Your task to perform on an android device: turn off airplane mode Image 0: 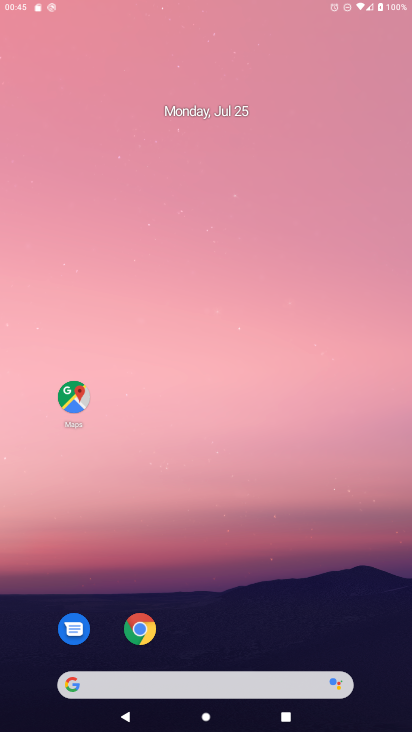
Step 0: click (404, 154)
Your task to perform on an android device: turn off airplane mode Image 1: 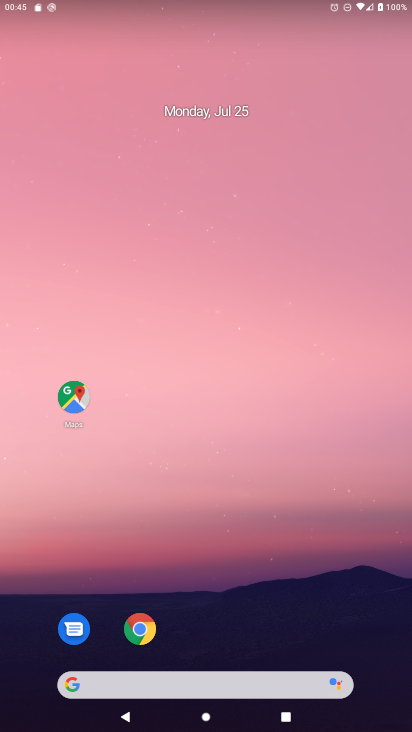
Step 1: drag from (169, 633) to (214, 364)
Your task to perform on an android device: turn off airplane mode Image 2: 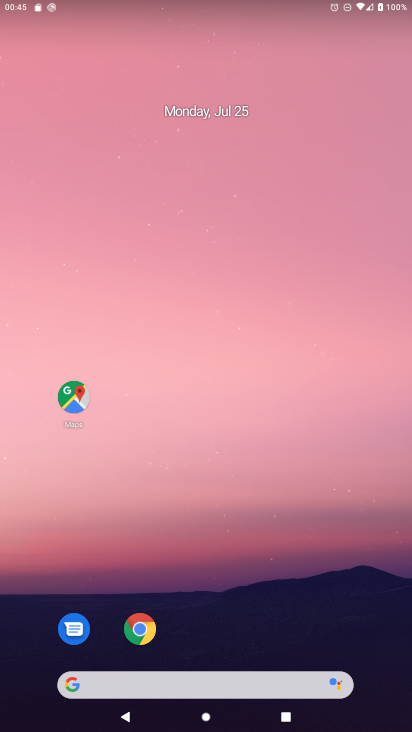
Step 2: drag from (180, 650) to (259, 267)
Your task to perform on an android device: turn off airplane mode Image 3: 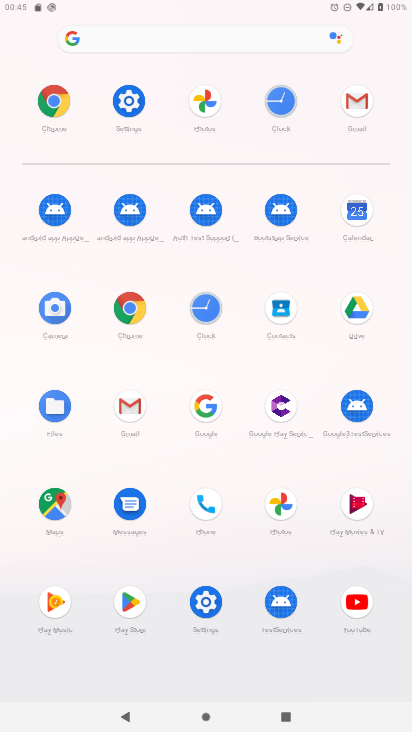
Step 3: click (207, 600)
Your task to perform on an android device: turn off airplane mode Image 4: 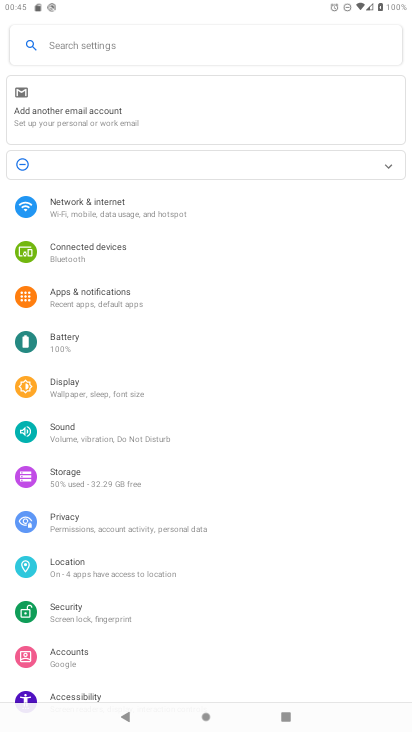
Step 4: drag from (152, 560) to (188, 311)
Your task to perform on an android device: turn off airplane mode Image 5: 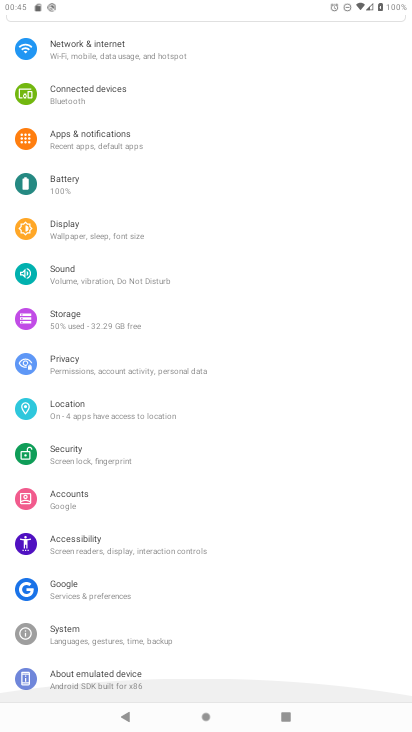
Step 5: drag from (166, 210) to (264, 628)
Your task to perform on an android device: turn off airplane mode Image 6: 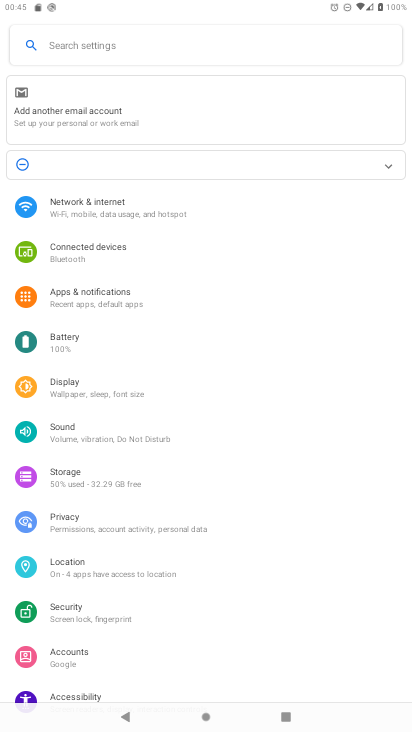
Step 6: click (135, 193)
Your task to perform on an android device: turn off airplane mode Image 7: 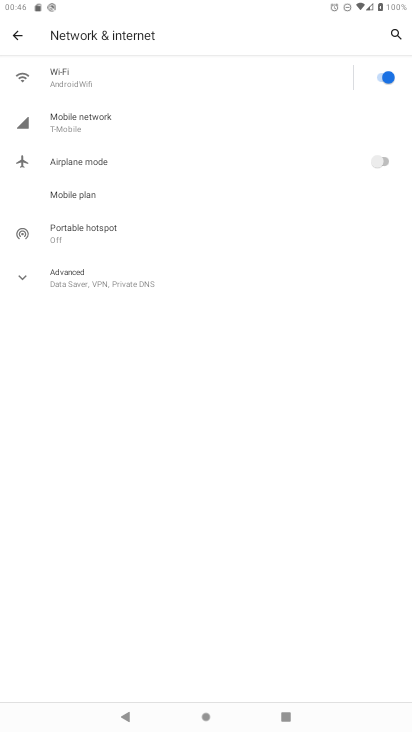
Step 7: task complete